Your task to perform on an android device: Open the web browser Image 0: 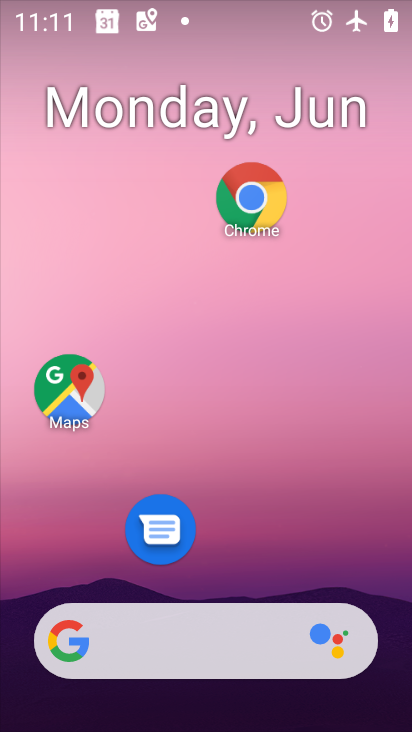
Step 0: click (249, 228)
Your task to perform on an android device: Open the web browser Image 1: 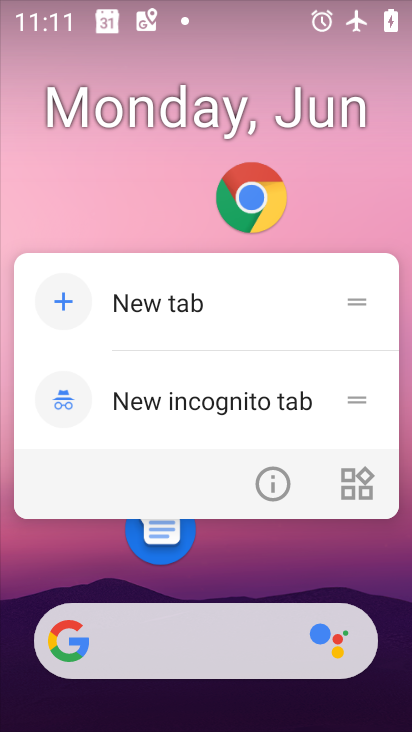
Step 1: click (249, 228)
Your task to perform on an android device: Open the web browser Image 2: 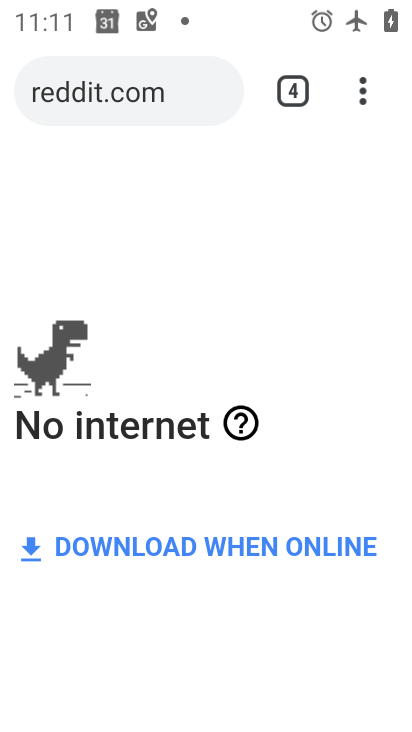
Step 2: task complete